Your task to perform on an android device: change the upload size in google photos Image 0: 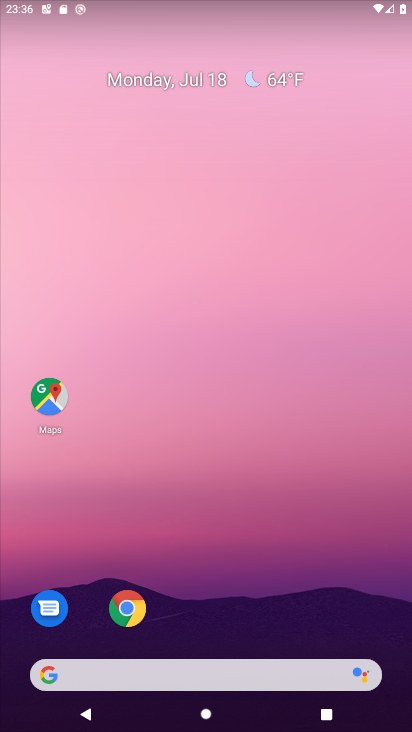
Step 0: drag from (247, 612) to (185, 75)
Your task to perform on an android device: change the upload size in google photos Image 1: 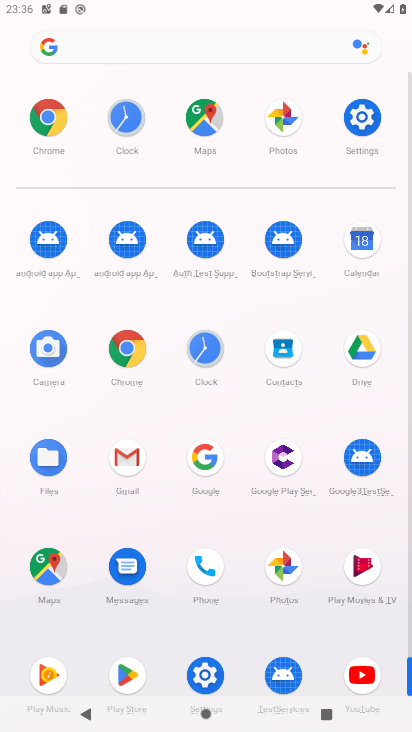
Step 1: click (283, 566)
Your task to perform on an android device: change the upload size in google photos Image 2: 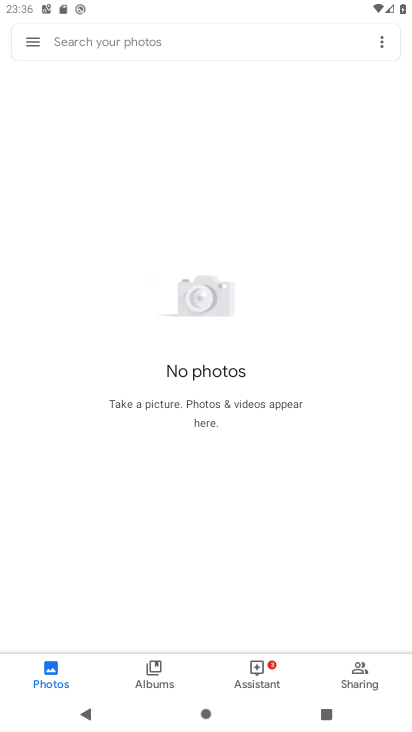
Step 2: click (32, 43)
Your task to perform on an android device: change the upload size in google photos Image 3: 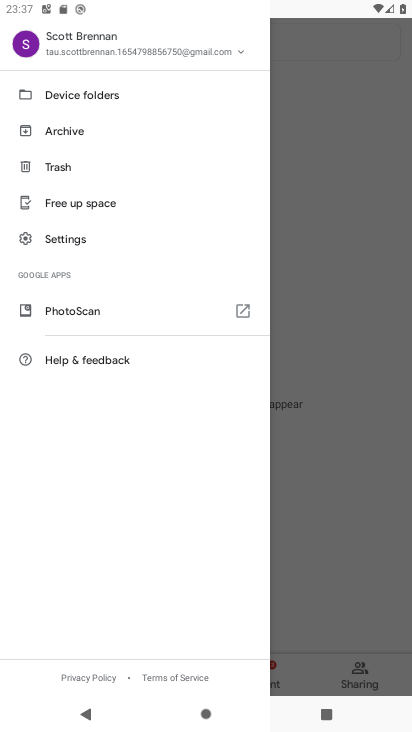
Step 3: click (118, 249)
Your task to perform on an android device: change the upload size in google photos Image 4: 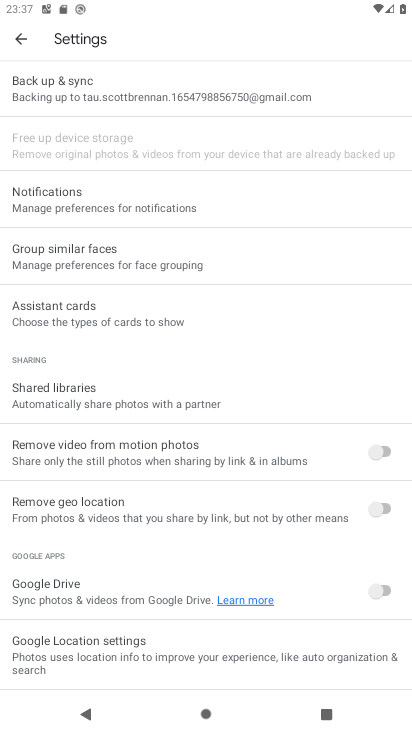
Step 4: click (150, 103)
Your task to perform on an android device: change the upload size in google photos Image 5: 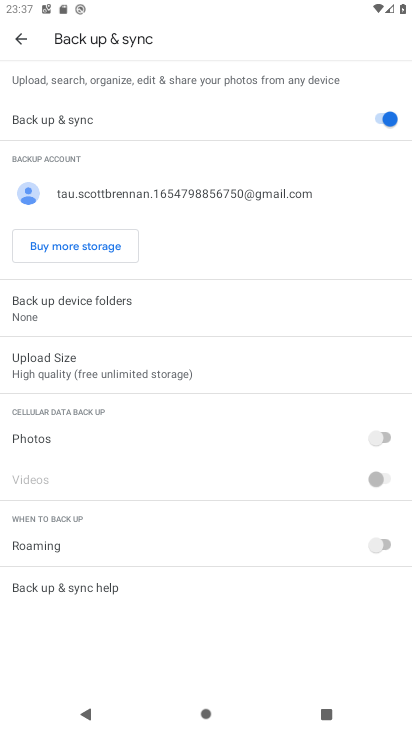
Step 5: click (147, 377)
Your task to perform on an android device: change the upload size in google photos Image 6: 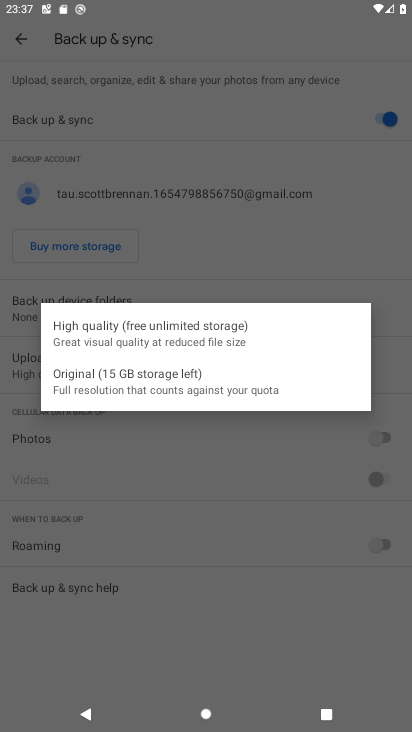
Step 6: click (152, 392)
Your task to perform on an android device: change the upload size in google photos Image 7: 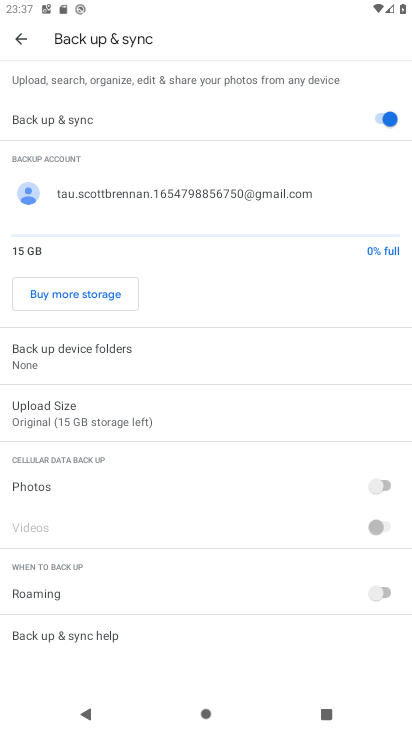
Step 7: task complete